Your task to perform on an android device: set the timer Image 0: 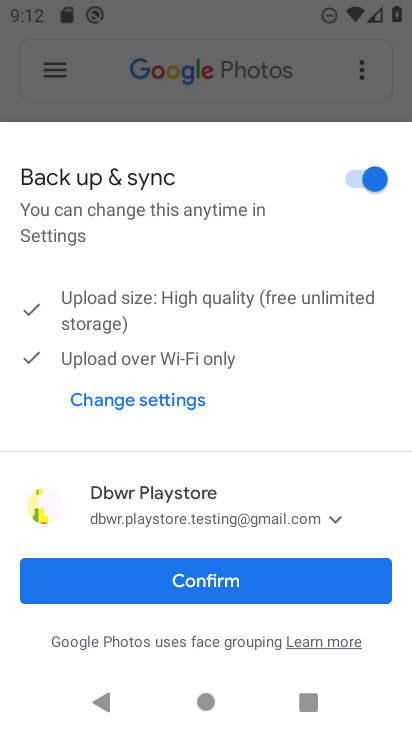
Step 0: press home button
Your task to perform on an android device: set the timer Image 1: 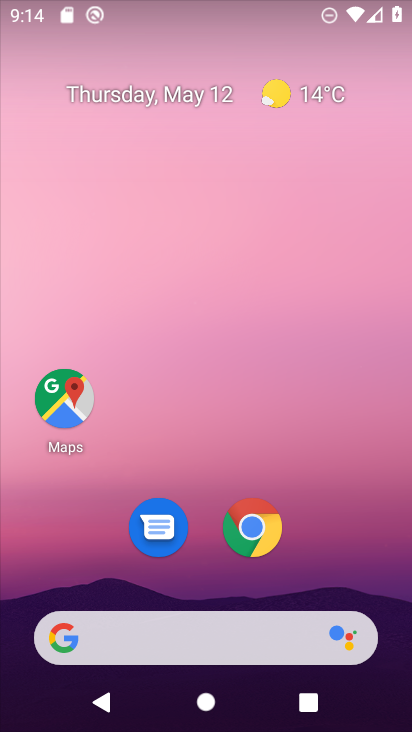
Step 1: drag from (335, 561) to (328, 39)
Your task to perform on an android device: set the timer Image 2: 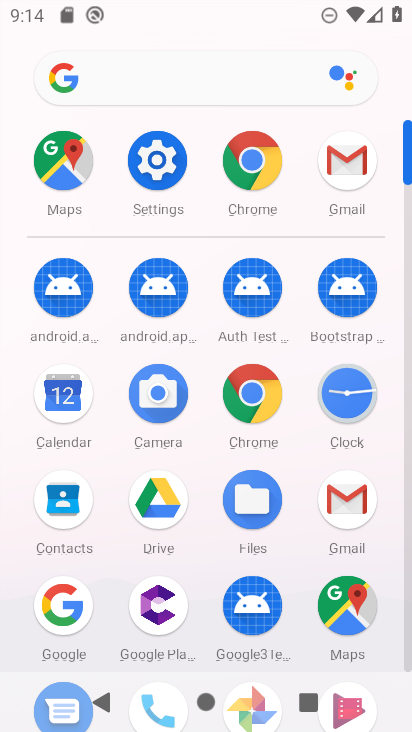
Step 2: click (368, 389)
Your task to perform on an android device: set the timer Image 3: 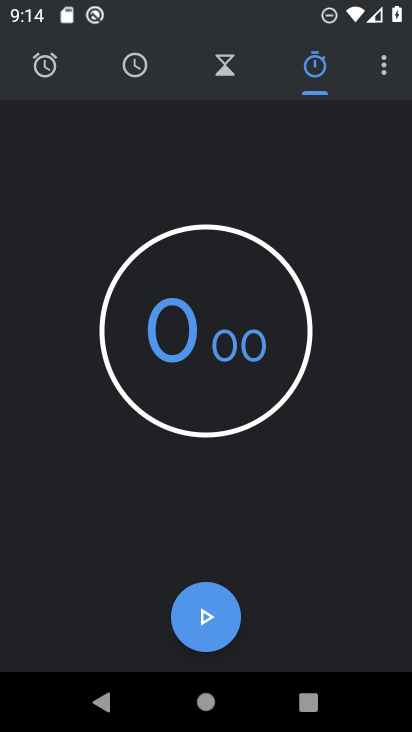
Step 3: click (216, 82)
Your task to perform on an android device: set the timer Image 4: 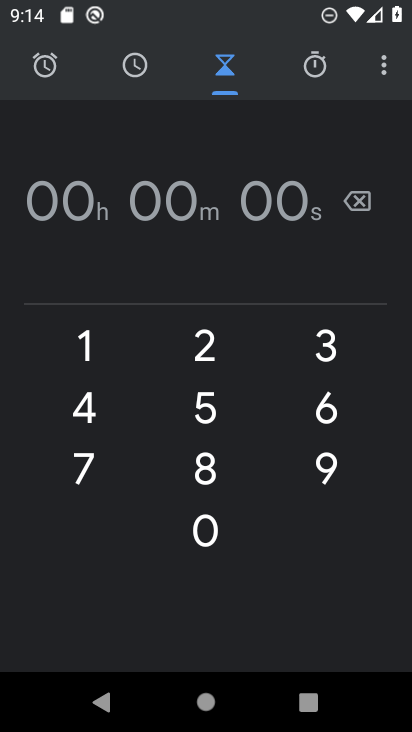
Step 4: task complete